Your task to perform on an android device: Go to notification settings Image 0: 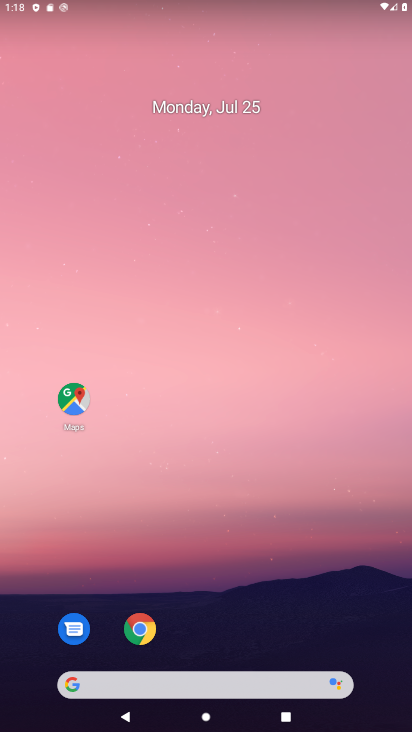
Step 0: drag from (202, 612) to (273, 165)
Your task to perform on an android device: Go to notification settings Image 1: 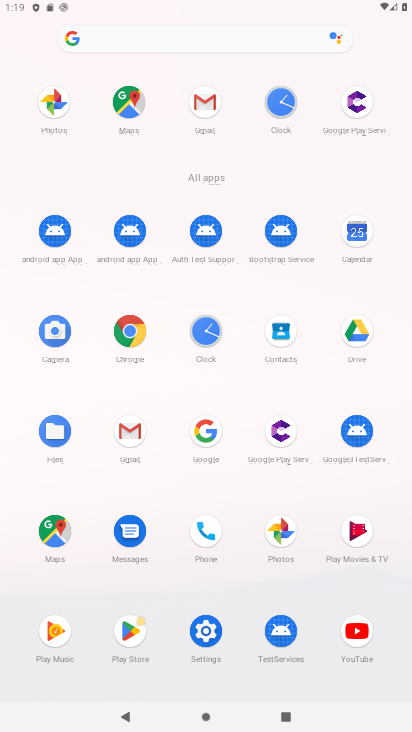
Step 1: click (195, 625)
Your task to perform on an android device: Go to notification settings Image 2: 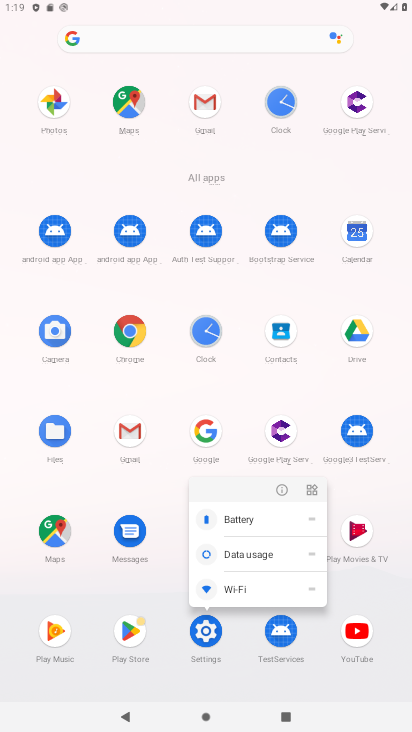
Step 2: click (277, 482)
Your task to perform on an android device: Go to notification settings Image 3: 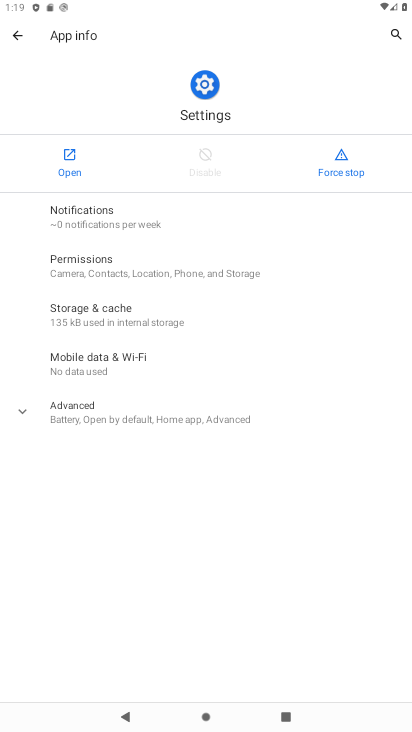
Step 3: click (44, 168)
Your task to perform on an android device: Go to notification settings Image 4: 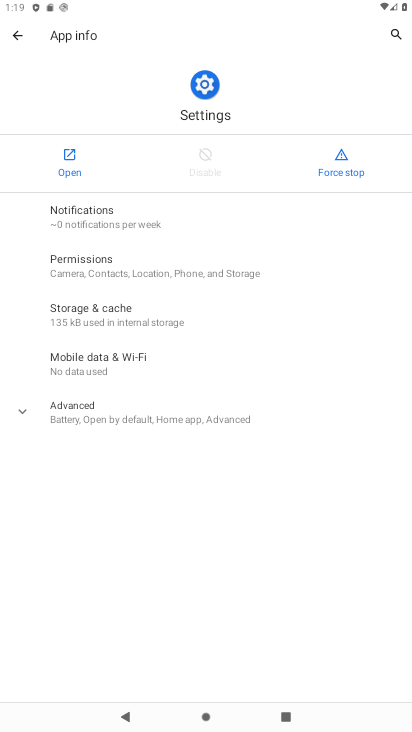
Step 4: click (62, 170)
Your task to perform on an android device: Go to notification settings Image 5: 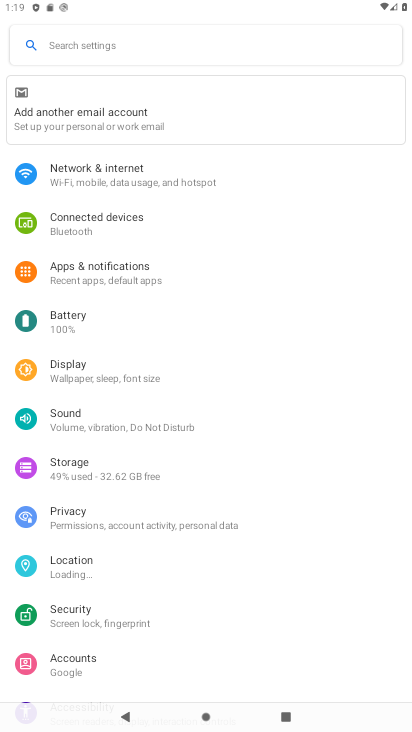
Step 5: click (112, 276)
Your task to perform on an android device: Go to notification settings Image 6: 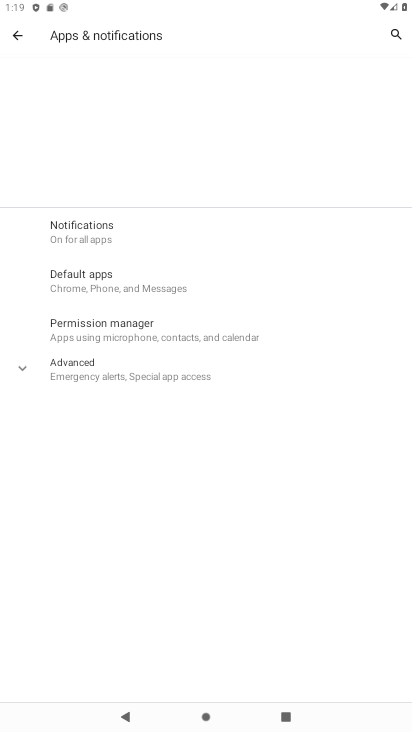
Step 6: drag from (234, 611) to (234, 286)
Your task to perform on an android device: Go to notification settings Image 7: 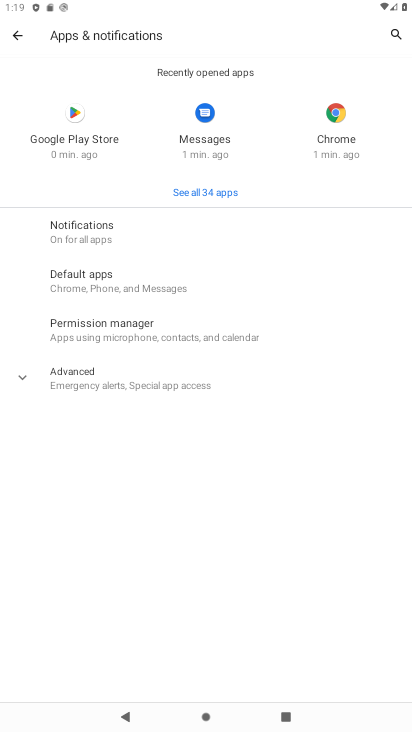
Step 7: drag from (255, 552) to (274, 239)
Your task to perform on an android device: Go to notification settings Image 8: 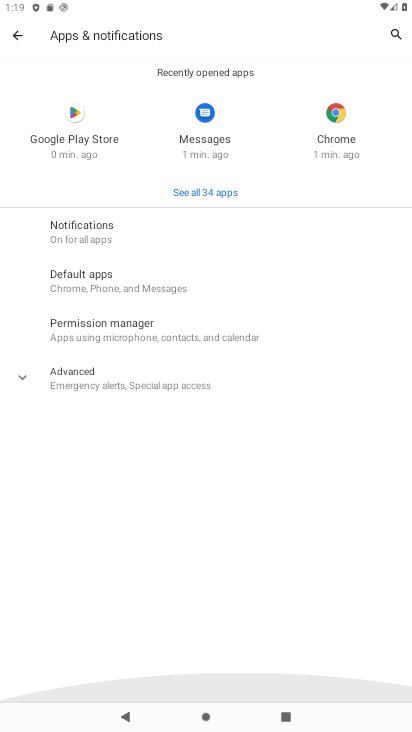
Step 8: click (134, 210)
Your task to perform on an android device: Go to notification settings Image 9: 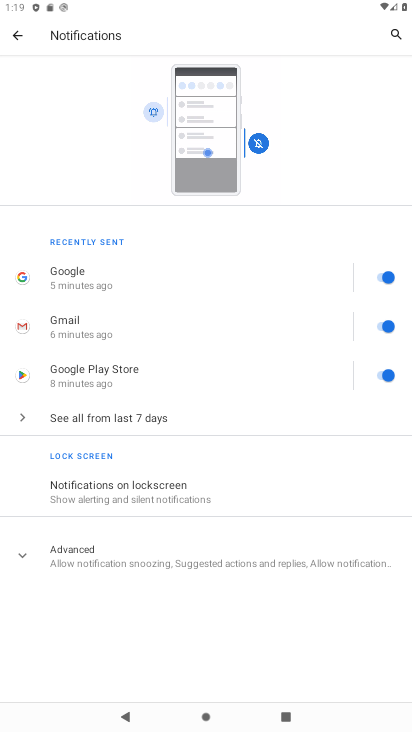
Step 9: task complete